Your task to perform on an android device: open app "Microsoft Outlook" Image 0: 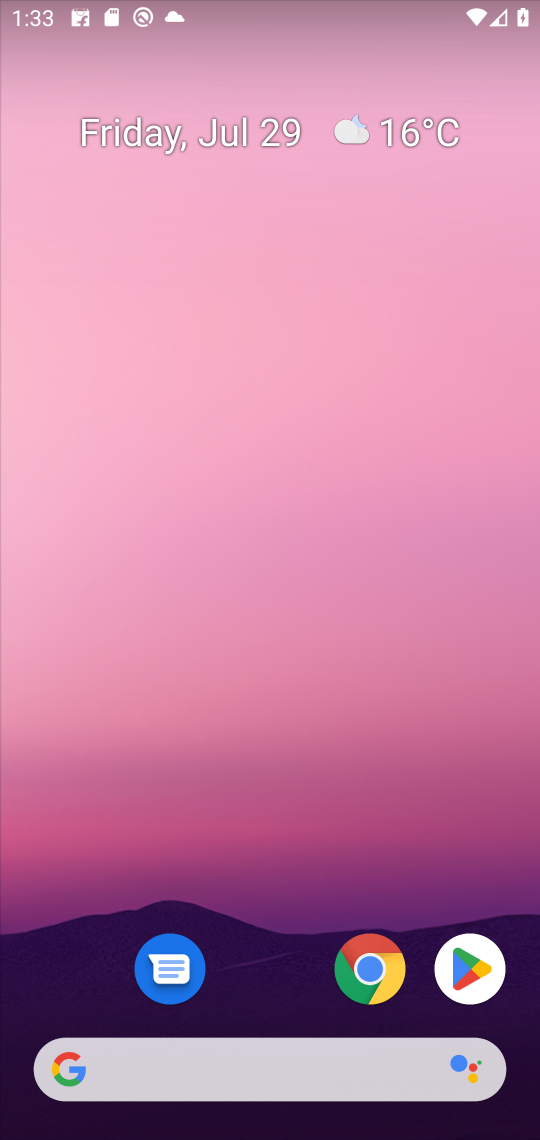
Step 0: press home button
Your task to perform on an android device: open app "Microsoft Outlook" Image 1: 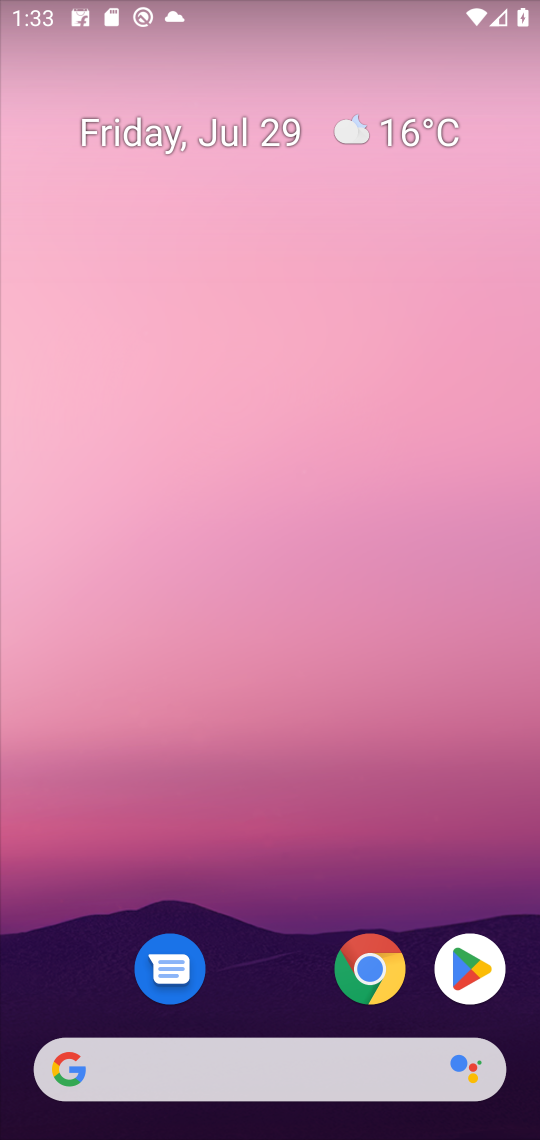
Step 1: click (454, 960)
Your task to perform on an android device: open app "Microsoft Outlook" Image 2: 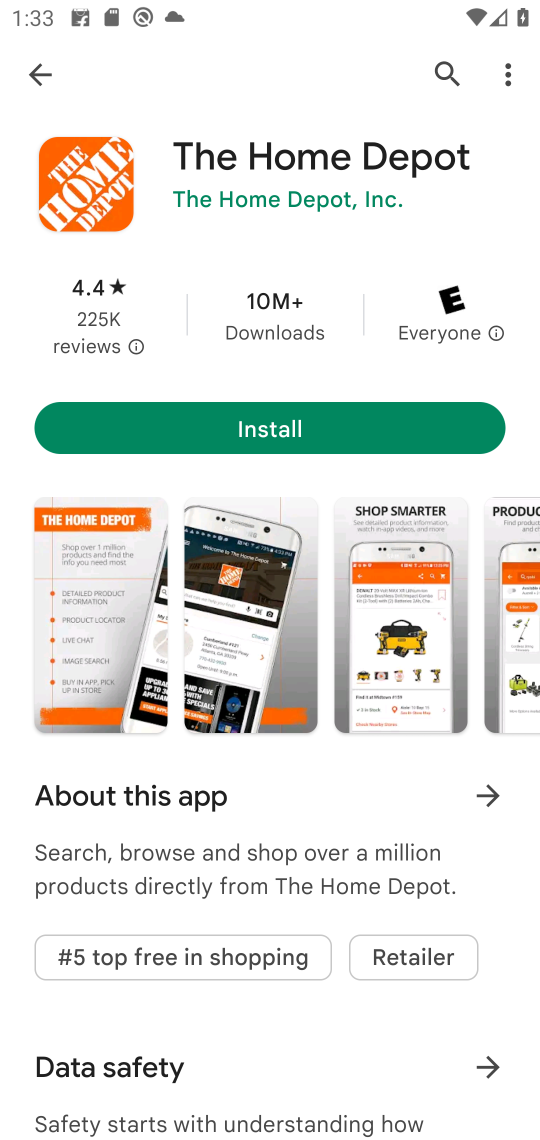
Step 2: click (448, 66)
Your task to perform on an android device: open app "Microsoft Outlook" Image 3: 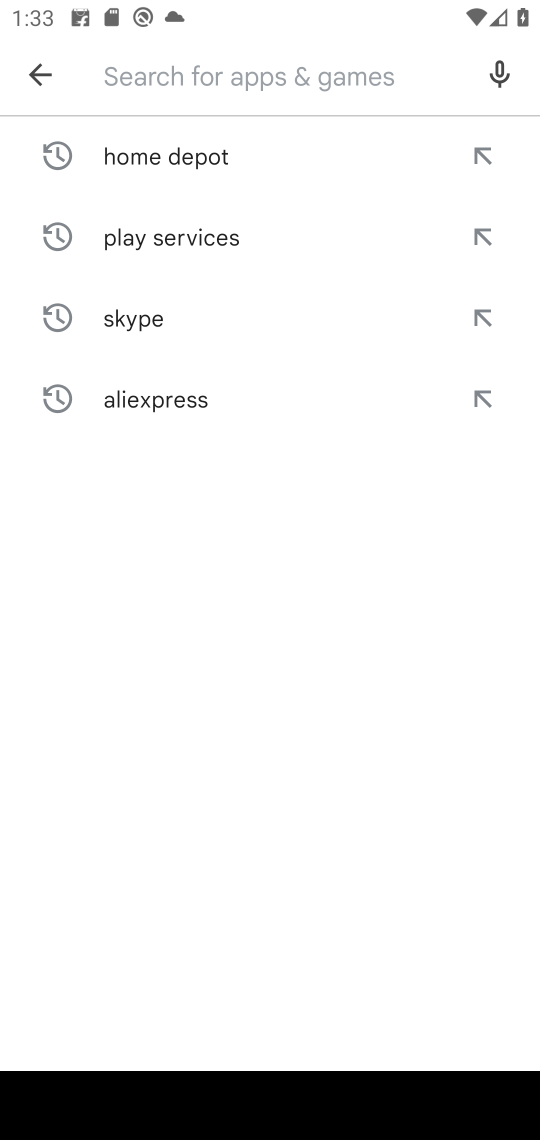
Step 3: type "outlook"
Your task to perform on an android device: open app "Microsoft Outlook" Image 4: 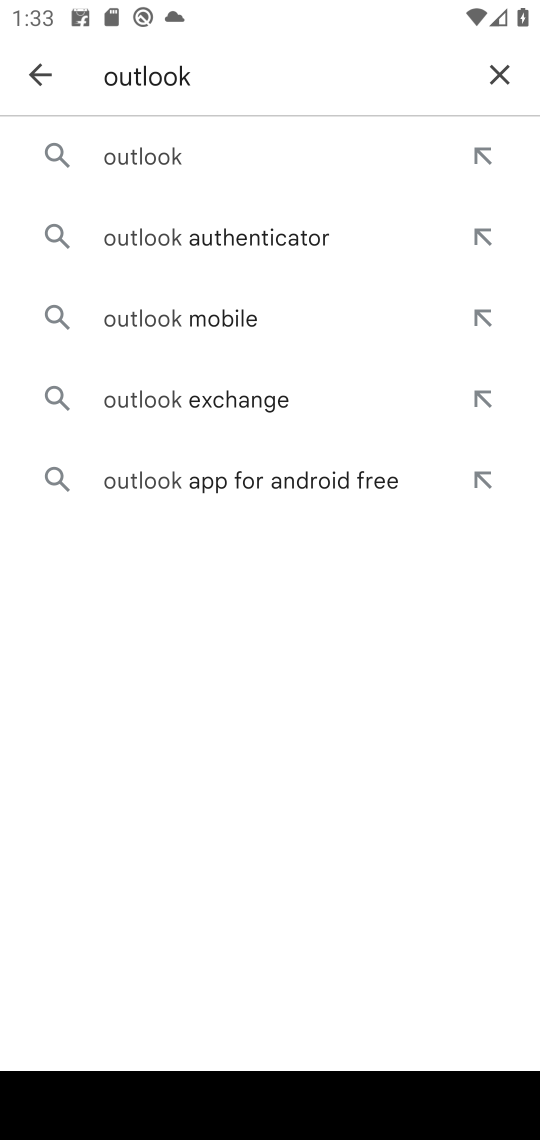
Step 4: click (212, 164)
Your task to perform on an android device: open app "Microsoft Outlook" Image 5: 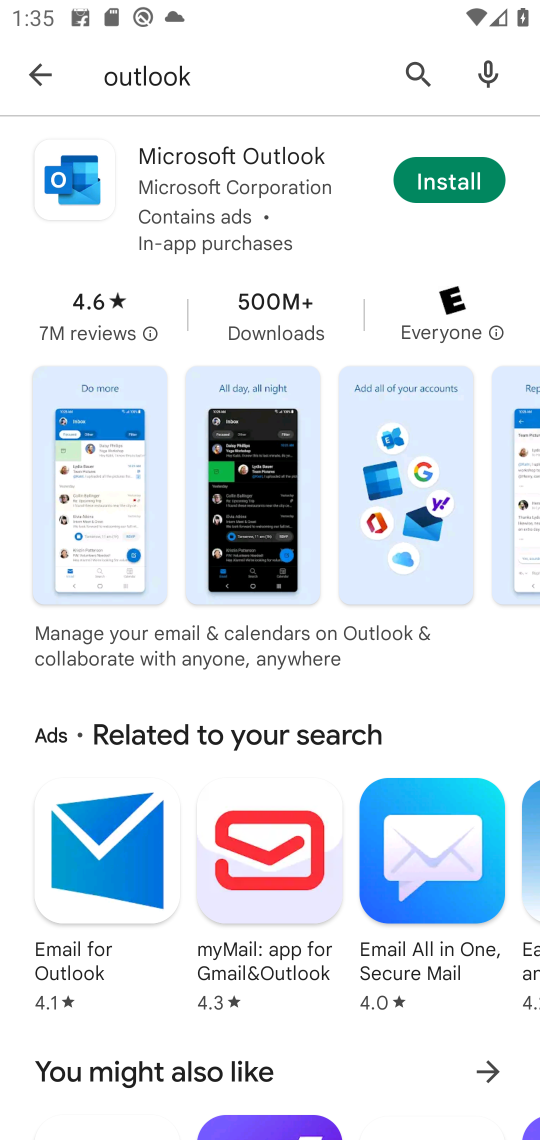
Step 5: task complete